Your task to perform on an android device: open a bookmark in the chrome app Image 0: 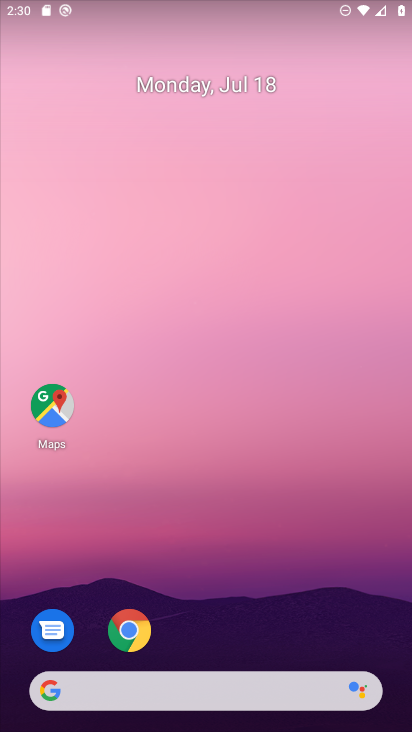
Step 0: press home button
Your task to perform on an android device: open a bookmark in the chrome app Image 1: 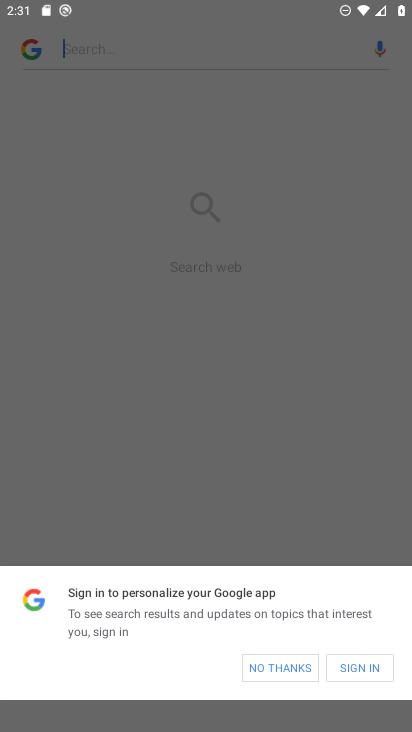
Step 1: press home button
Your task to perform on an android device: open a bookmark in the chrome app Image 2: 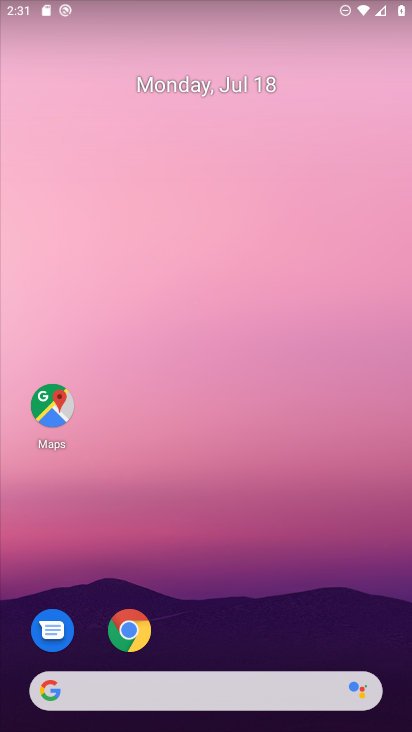
Step 2: drag from (261, 571) to (240, 95)
Your task to perform on an android device: open a bookmark in the chrome app Image 3: 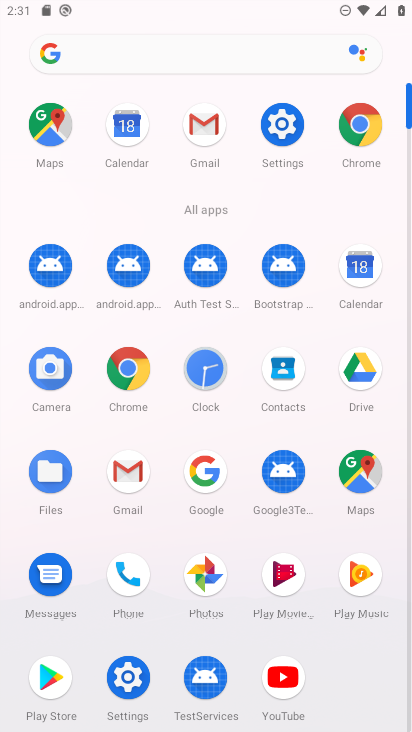
Step 3: click (355, 133)
Your task to perform on an android device: open a bookmark in the chrome app Image 4: 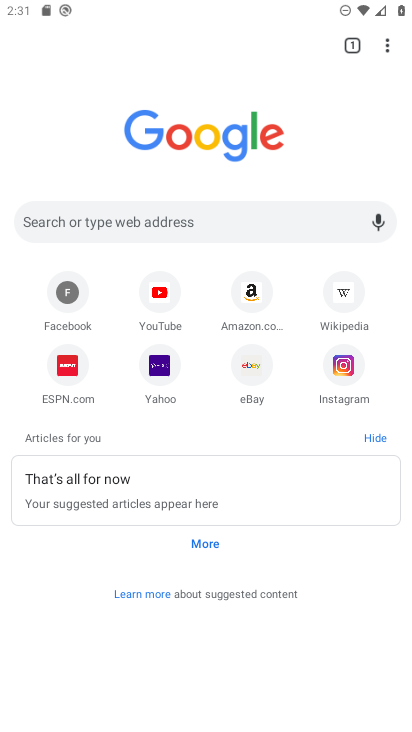
Step 4: task complete